Your task to perform on an android device: Go to wifi settings Image 0: 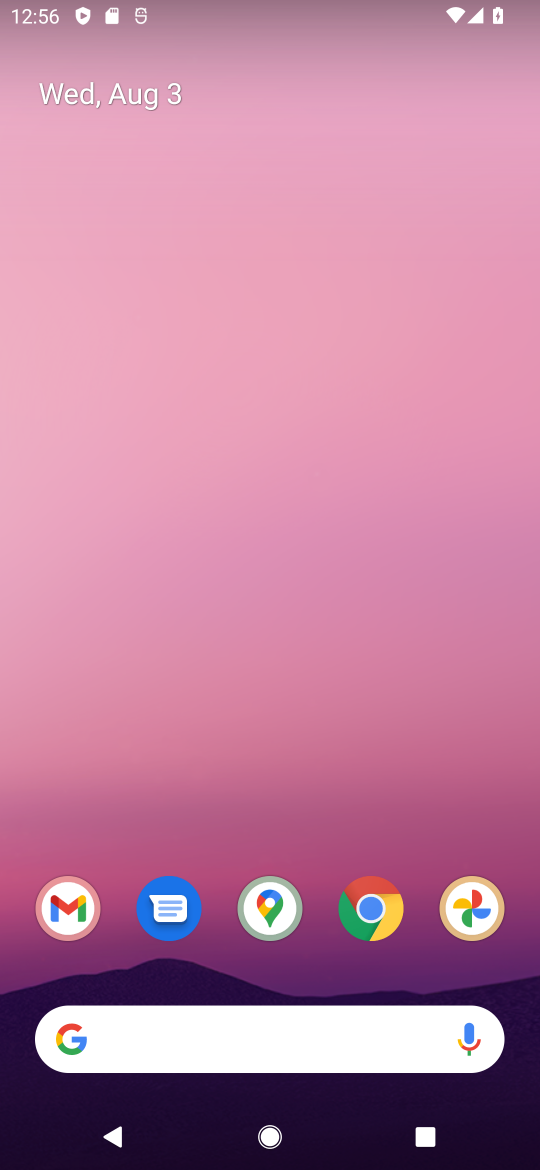
Step 0: drag from (195, 936) to (258, 273)
Your task to perform on an android device: Go to wifi settings Image 1: 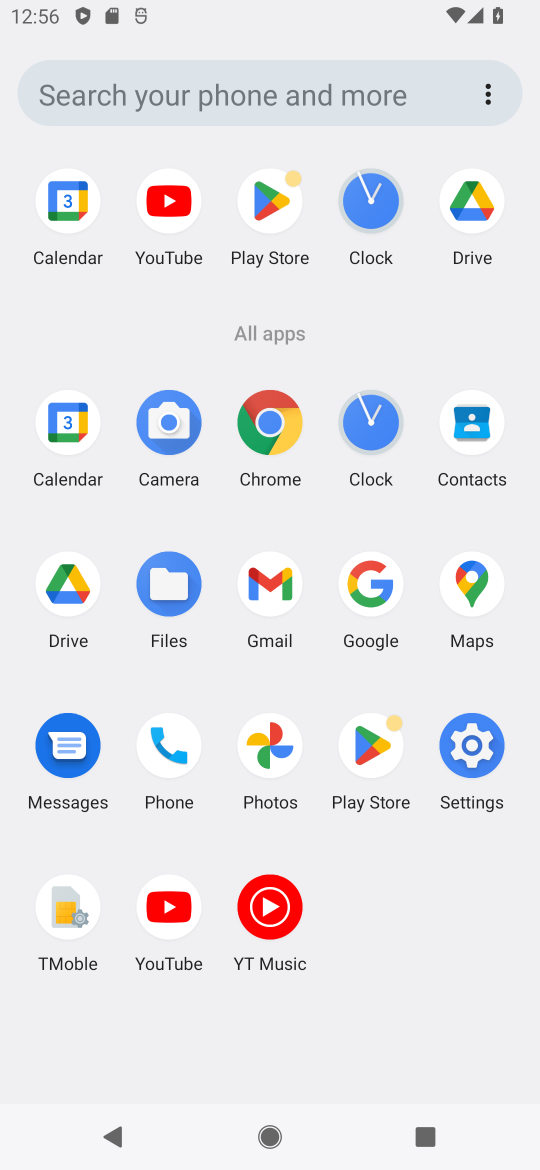
Step 1: click (462, 754)
Your task to perform on an android device: Go to wifi settings Image 2: 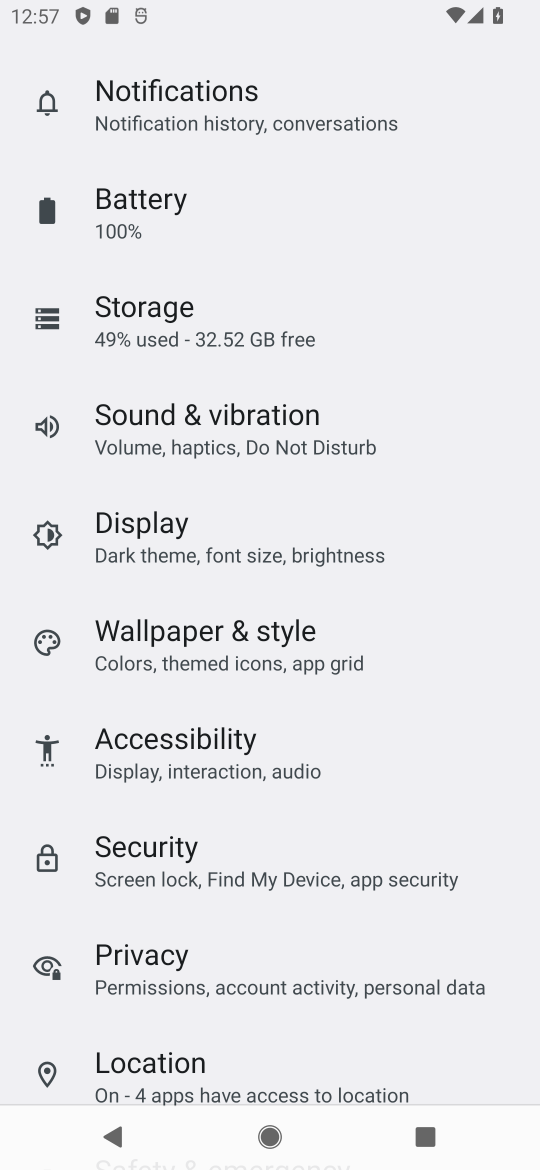
Step 2: drag from (254, 293) to (208, 1030)
Your task to perform on an android device: Go to wifi settings Image 3: 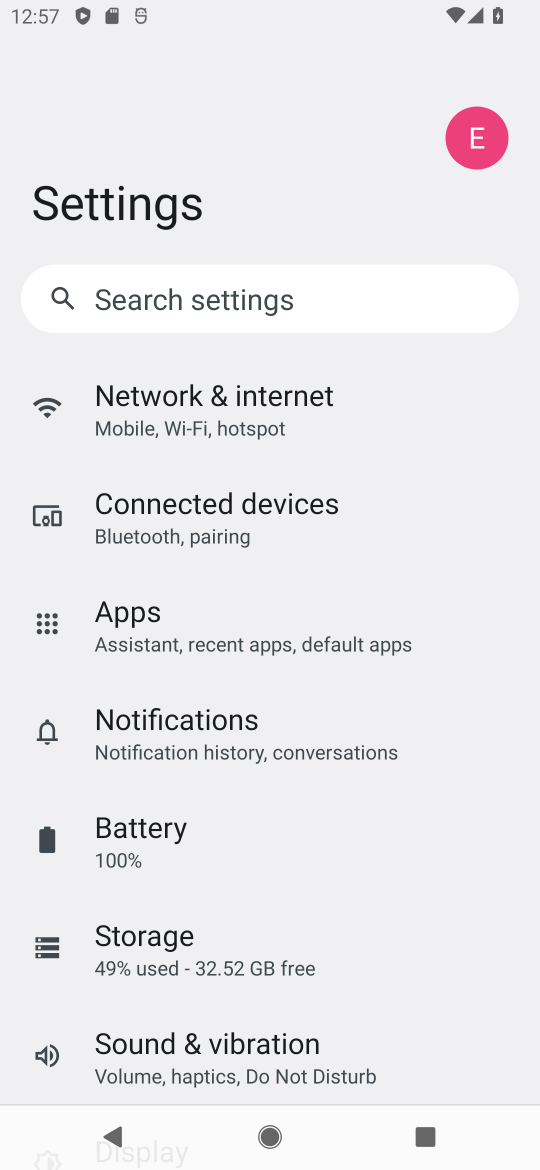
Step 3: click (261, 405)
Your task to perform on an android device: Go to wifi settings Image 4: 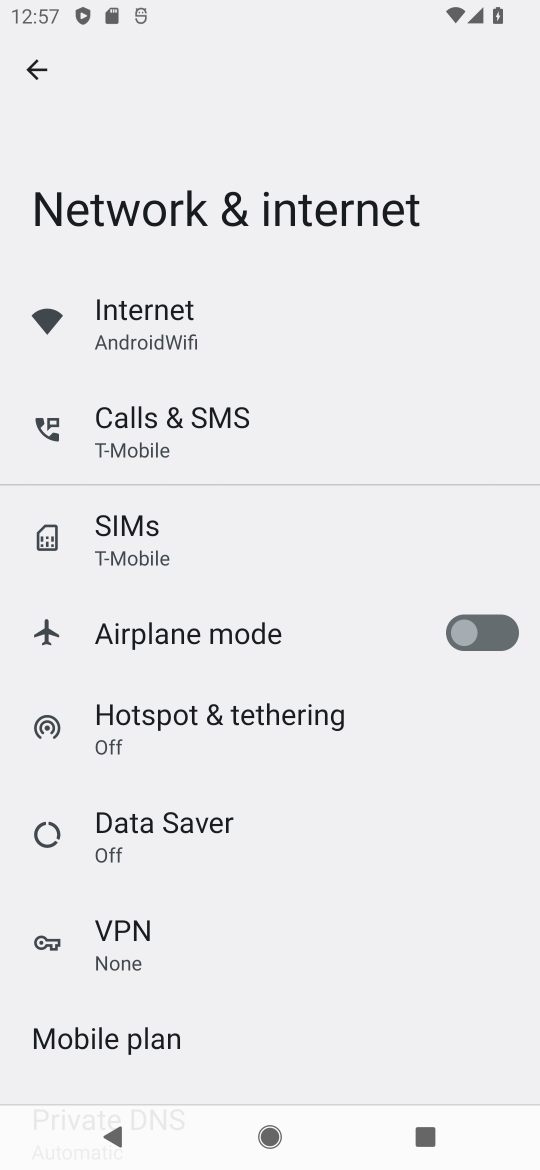
Step 4: click (148, 322)
Your task to perform on an android device: Go to wifi settings Image 5: 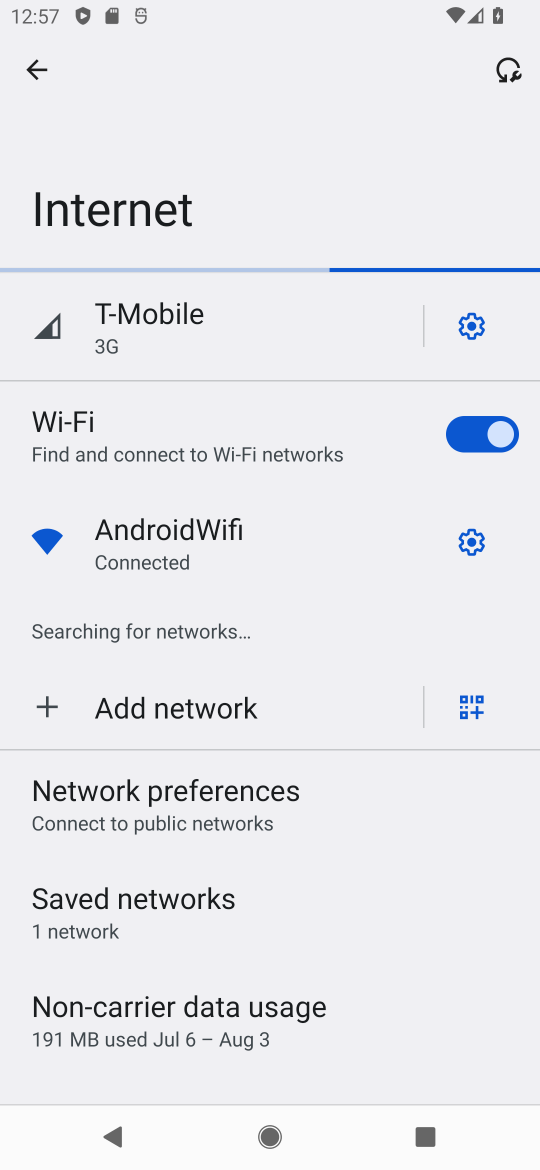
Step 5: click (222, 441)
Your task to perform on an android device: Go to wifi settings Image 6: 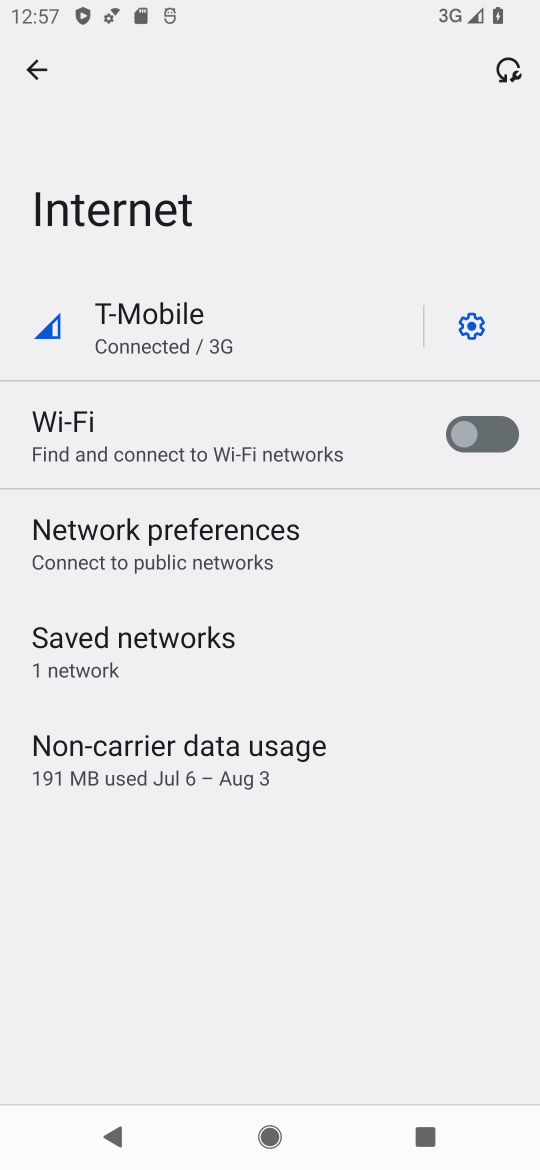
Step 6: task complete